Your task to perform on an android device: change your default location settings in chrome Image 0: 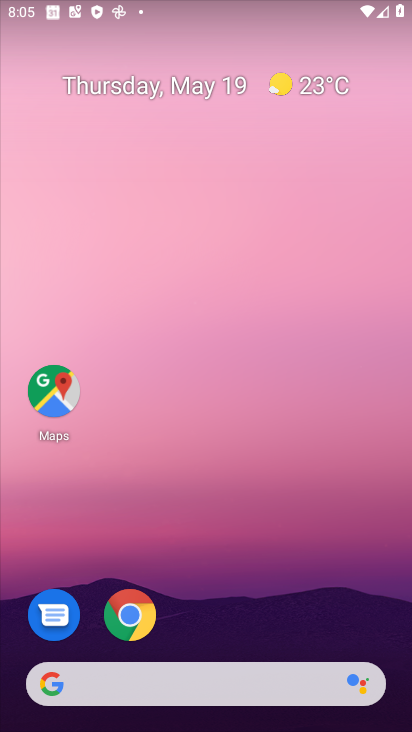
Step 0: drag from (398, 655) to (279, 73)
Your task to perform on an android device: change your default location settings in chrome Image 1: 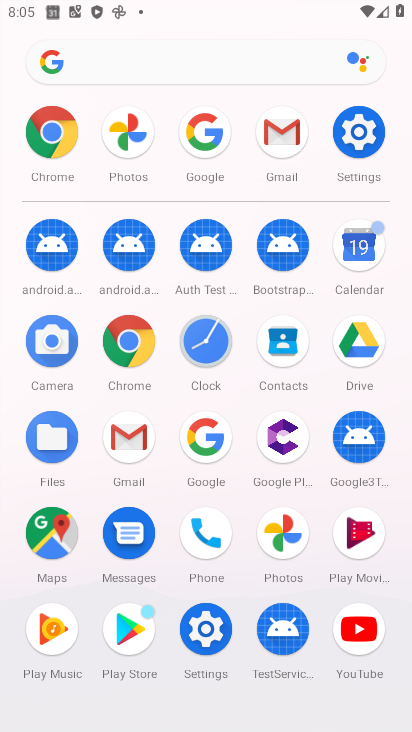
Step 1: click (46, 140)
Your task to perform on an android device: change your default location settings in chrome Image 2: 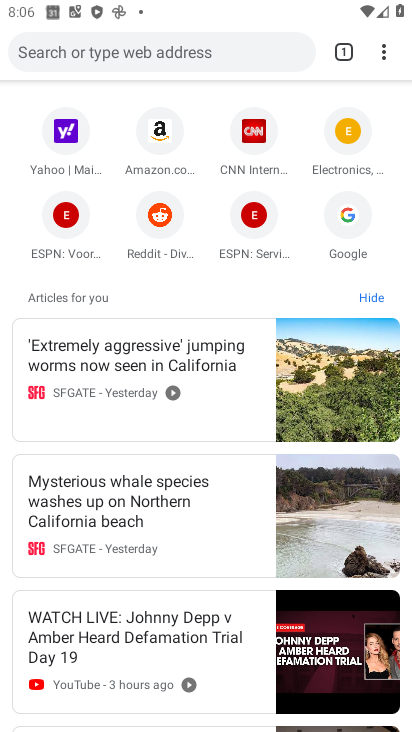
Step 2: click (383, 52)
Your task to perform on an android device: change your default location settings in chrome Image 3: 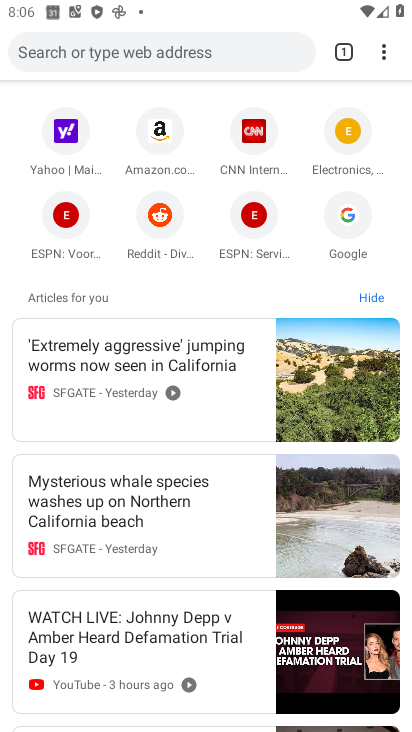
Step 3: click (387, 46)
Your task to perform on an android device: change your default location settings in chrome Image 4: 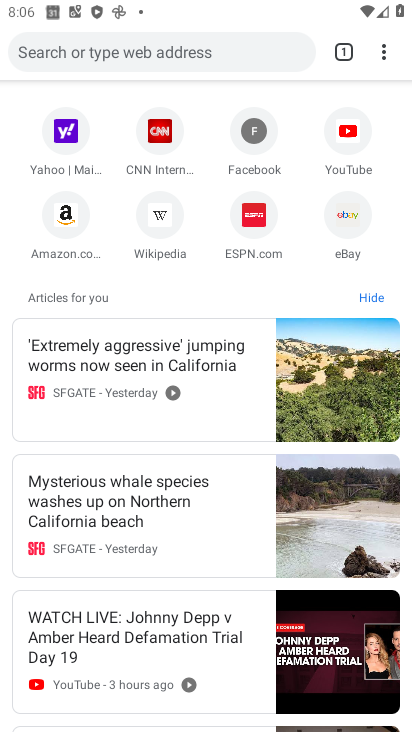
Step 4: click (386, 46)
Your task to perform on an android device: change your default location settings in chrome Image 5: 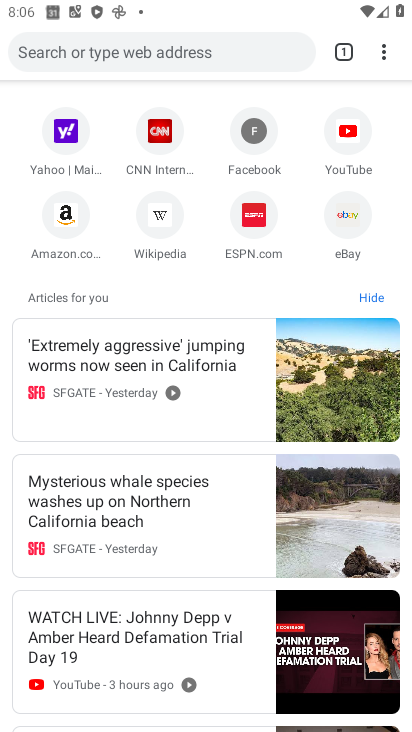
Step 5: click (384, 46)
Your task to perform on an android device: change your default location settings in chrome Image 6: 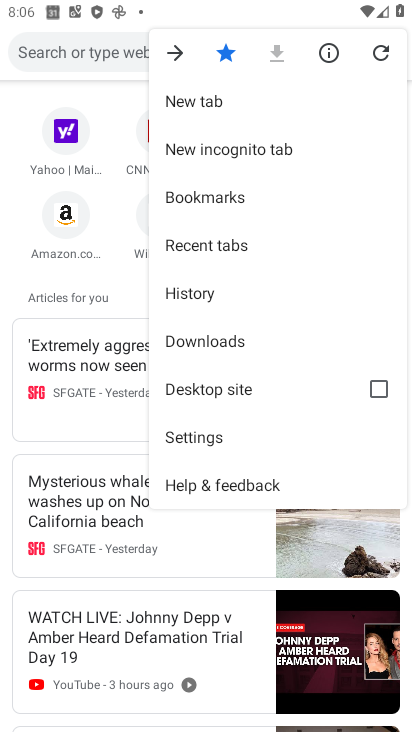
Step 6: click (234, 432)
Your task to perform on an android device: change your default location settings in chrome Image 7: 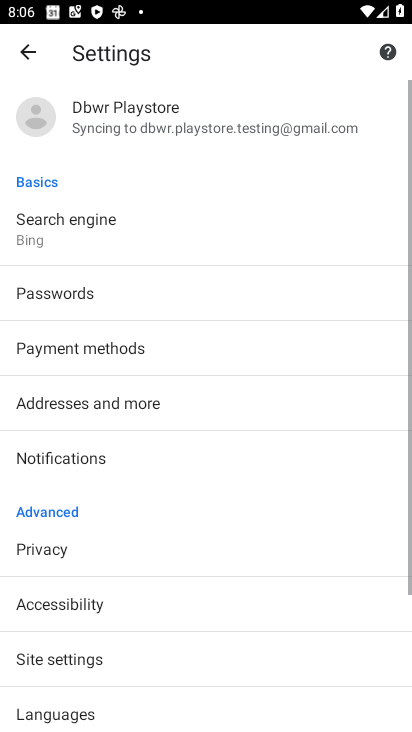
Step 7: click (143, 232)
Your task to perform on an android device: change your default location settings in chrome Image 8: 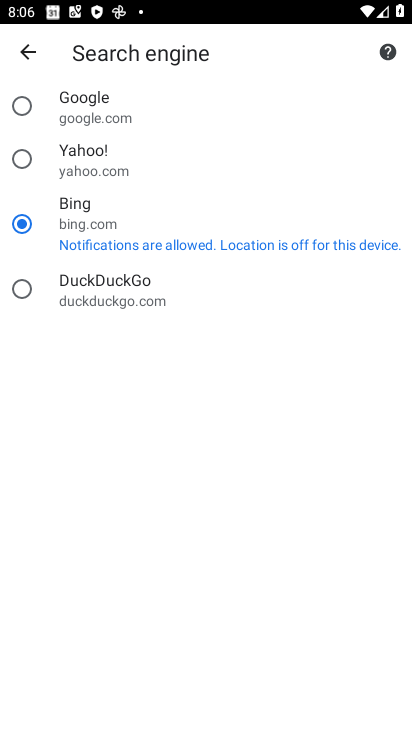
Step 8: click (119, 123)
Your task to perform on an android device: change your default location settings in chrome Image 9: 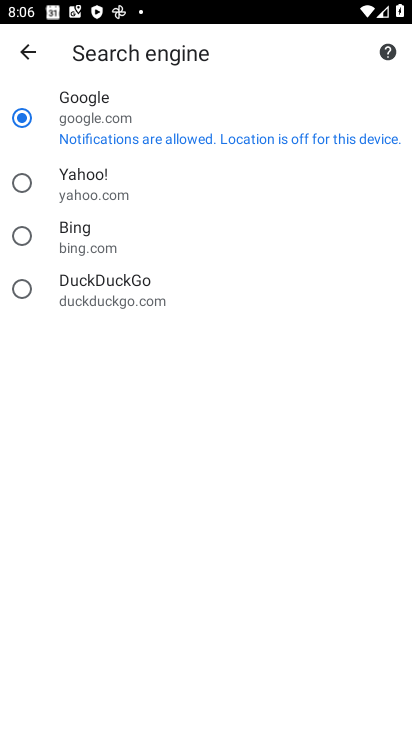
Step 9: task complete